Your task to perform on an android device: Open Reddit.com Image 0: 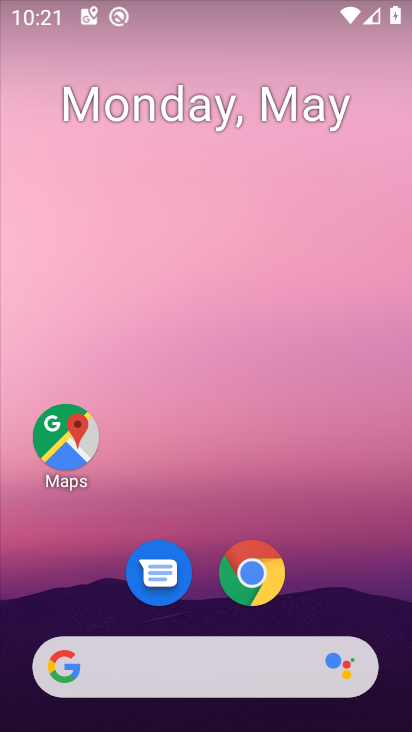
Step 0: click (243, 570)
Your task to perform on an android device: Open Reddit.com Image 1: 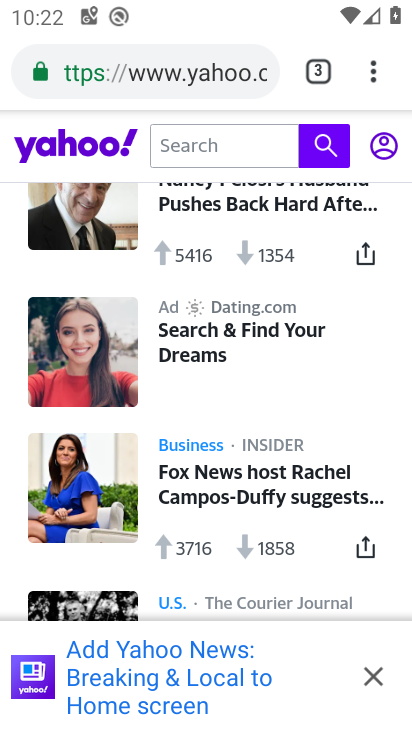
Step 1: click (311, 69)
Your task to perform on an android device: Open Reddit.com Image 2: 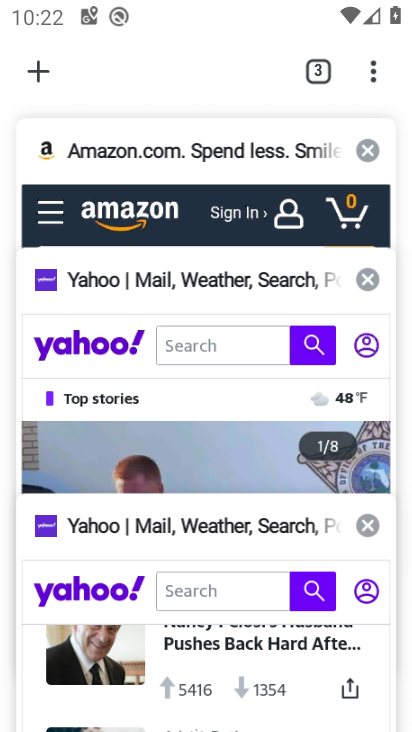
Step 2: click (38, 74)
Your task to perform on an android device: Open Reddit.com Image 3: 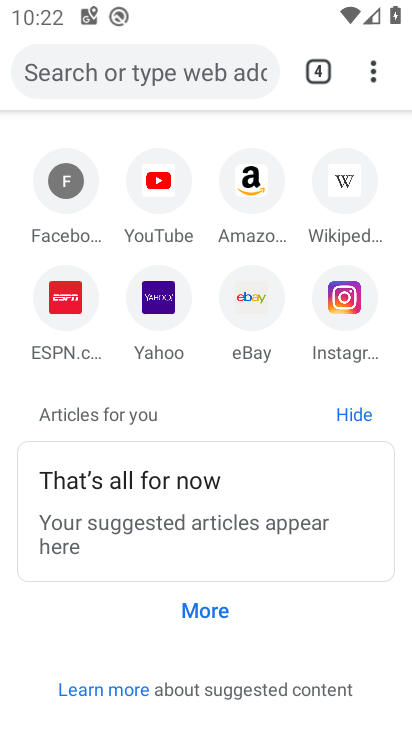
Step 3: click (102, 73)
Your task to perform on an android device: Open Reddit.com Image 4: 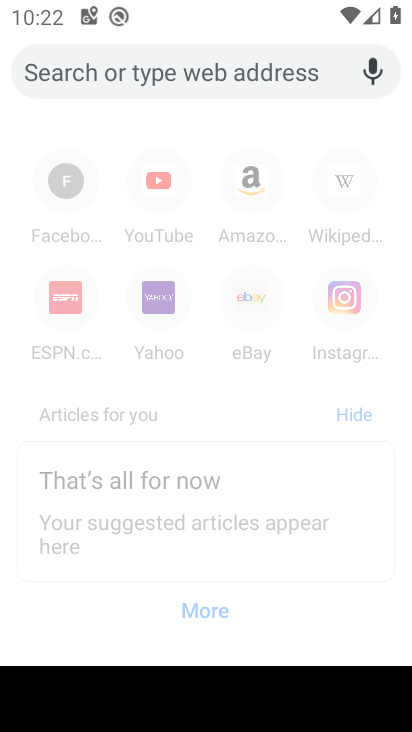
Step 4: type "reddit.com"
Your task to perform on an android device: Open Reddit.com Image 5: 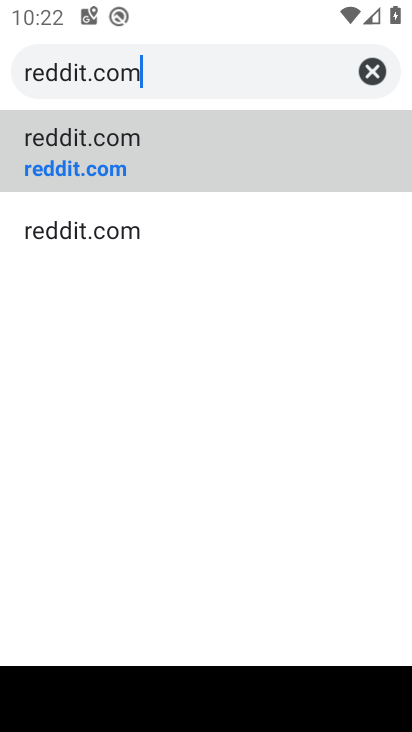
Step 5: click (122, 159)
Your task to perform on an android device: Open Reddit.com Image 6: 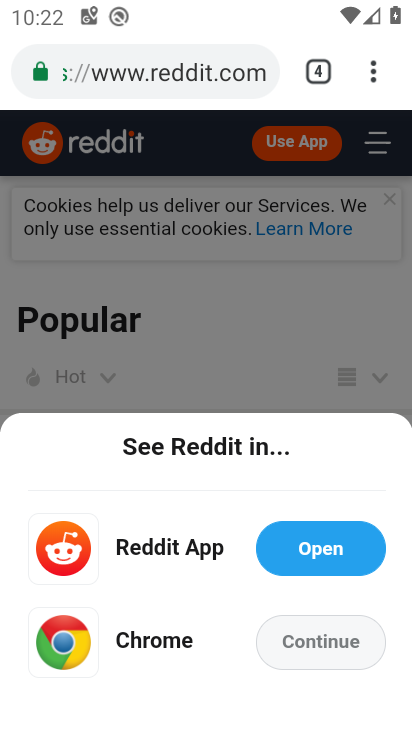
Step 6: task complete